Your task to perform on an android device: turn off javascript in the chrome app Image 0: 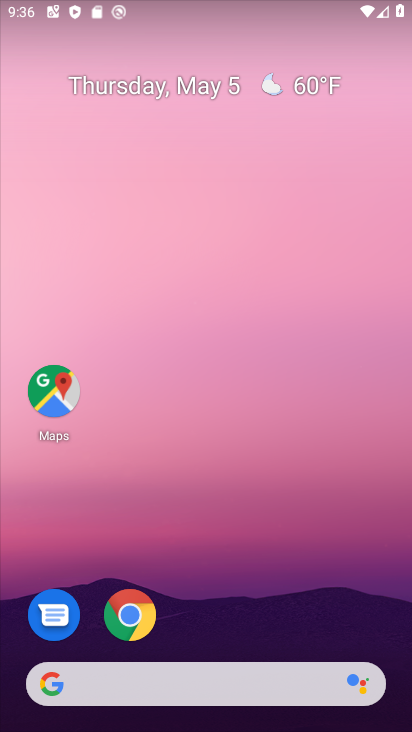
Step 0: drag from (221, 594) to (290, 92)
Your task to perform on an android device: turn off javascript in the chrome app Image 1: 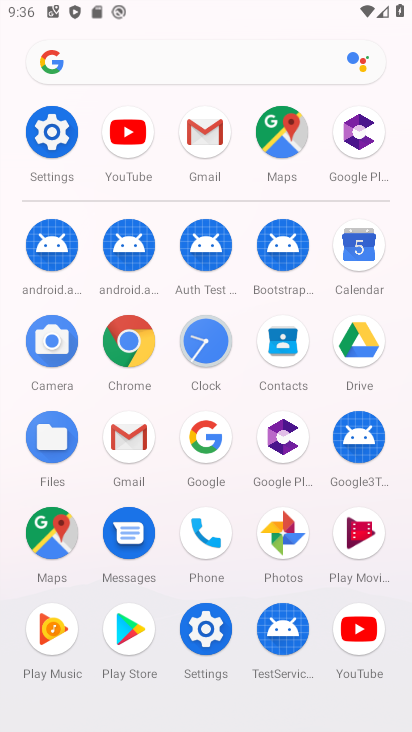
Step 1: click (126, 334)
Your task to perform on an android device: turn off javascript in the chrome app Image 2: 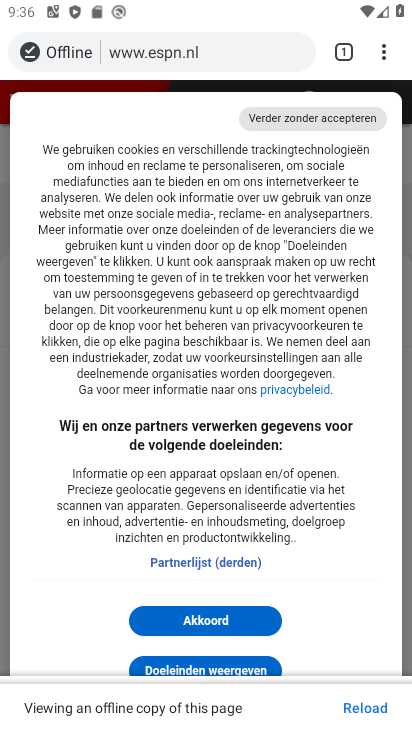
Step 2: click (374, 55)
Your task to perform on an android device: turn off javascript in the chrome app Image 3: 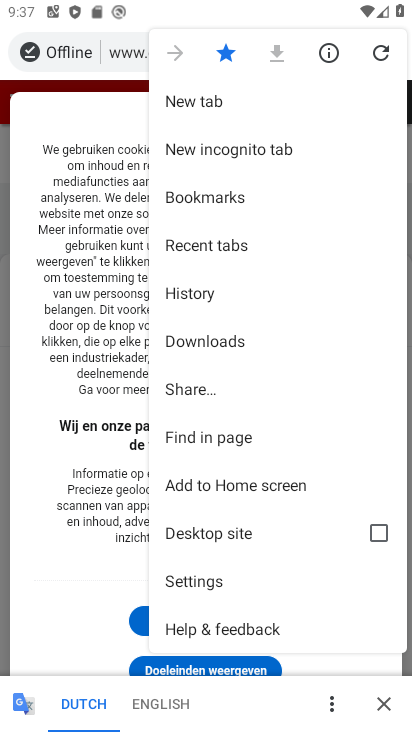
Step 3: click (218, 579)
Your task to perform on an android device: turn off javascript in the chrome app Image 4: 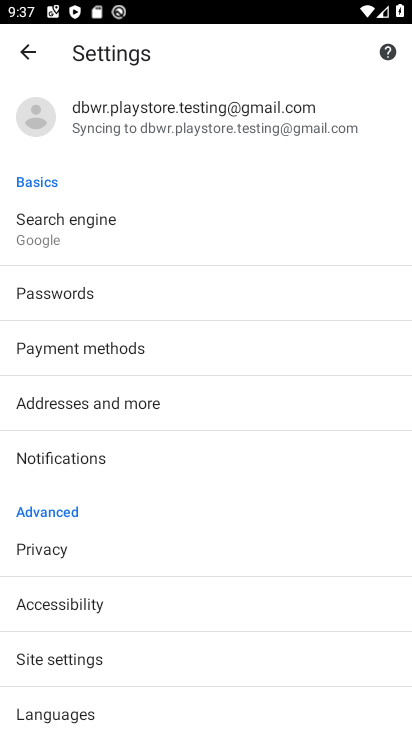
Step 4: click (65, 659)
Your task to perform on an android device: turn off javascript in the chrome app Image 5: 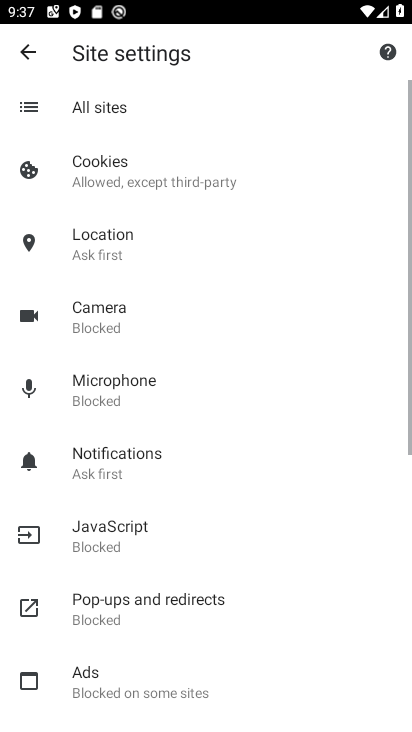
Step 5: click (136, 542)
Your task to perform on an android device: turn off javascript in the chrome app Image 6: 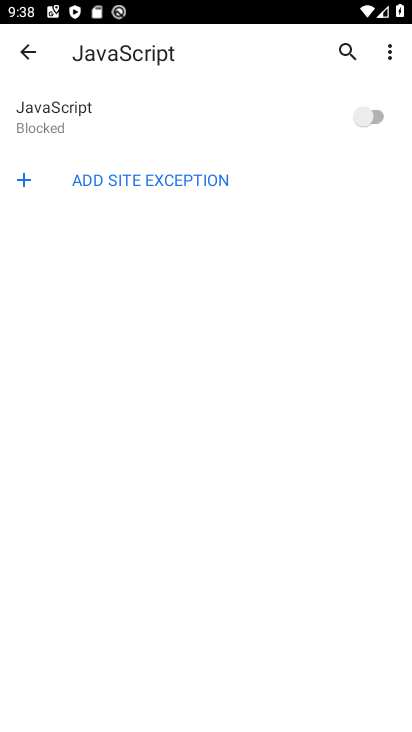
Step 6: task complete